Your task to perform on an android device: change the clock style Image 0: 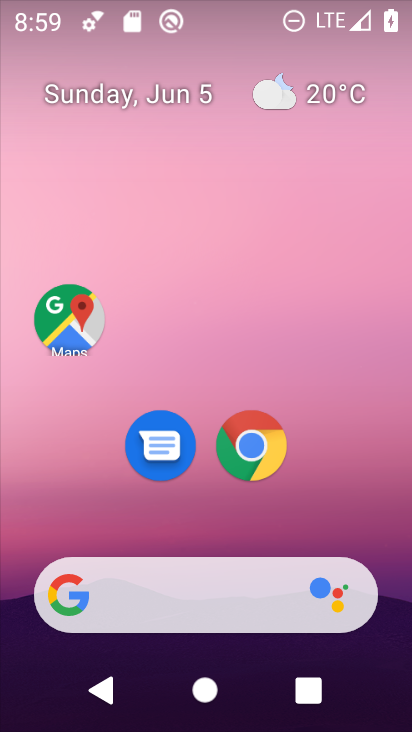
Step 0: drag from (260, 587) to (352, 6)
Your task to perform on an android device: change the clock style Image 1: 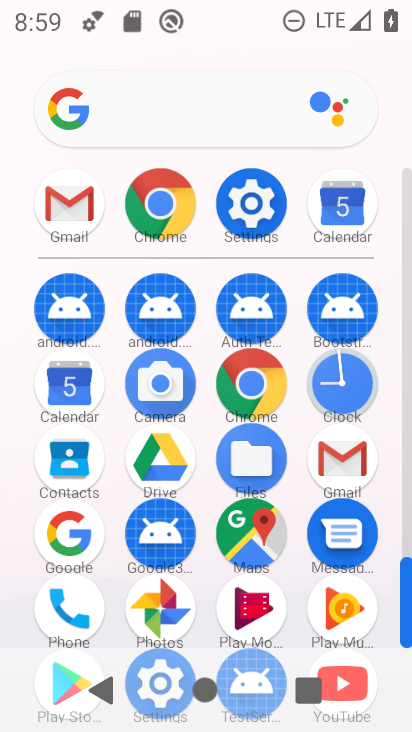
Step 1: click (353, 394)
Your task to perform on an android device: change the clock style Image 2: 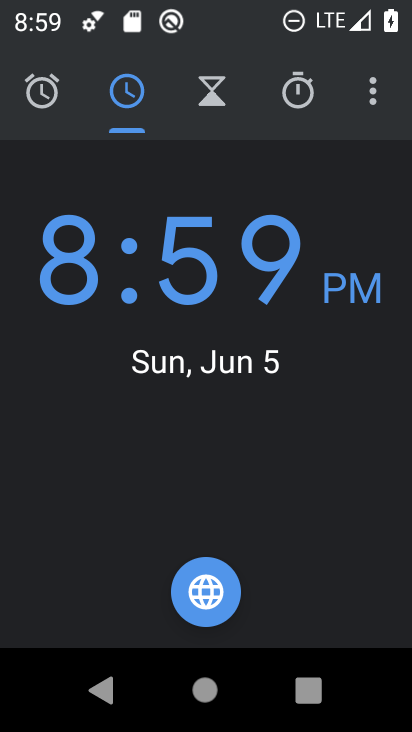
Step 2: click (388, 86)
Your task to perform on an android device: change the clock style Image 3: 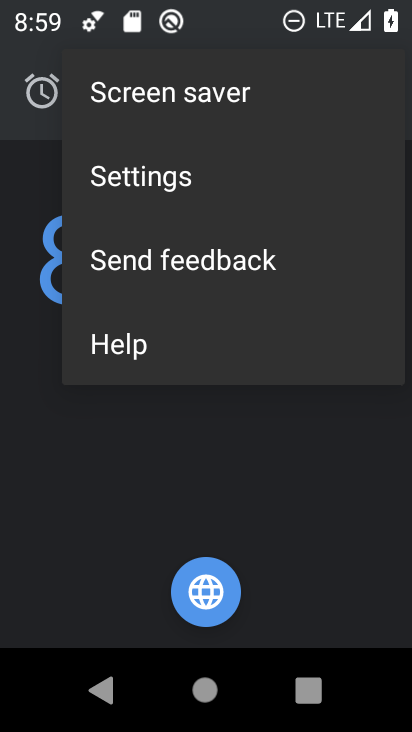
Step 3: click (165, 172)
Your task to perform on an android device: change the clock style Image 4: 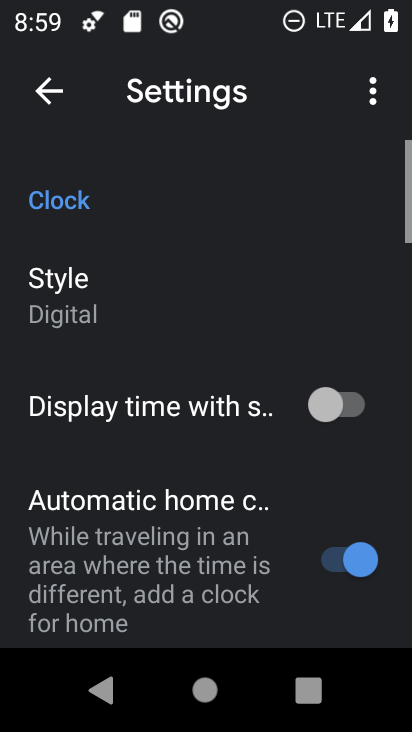
Step 4: click (115, 301)
Your task to perform on an android device: change the clock style Image 5: 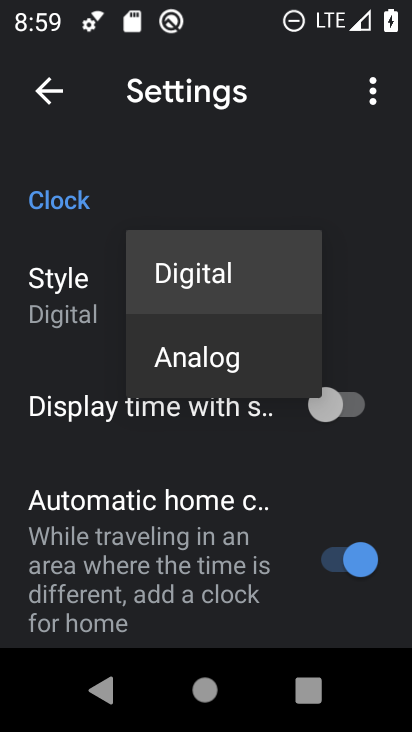
Step 5: click (182, 361)
Your task to perform on an android device: change the clock style Image 6: 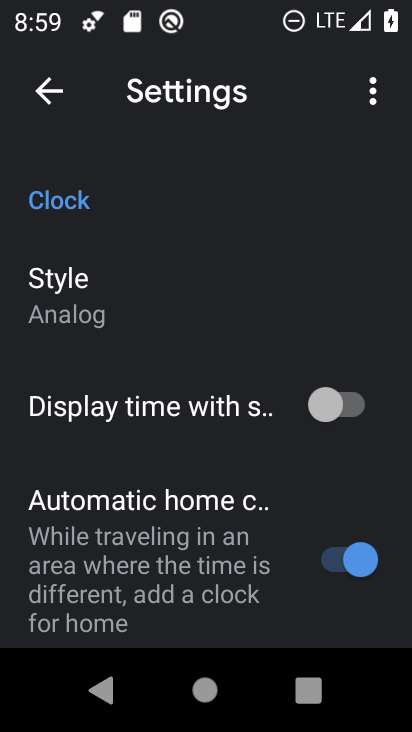
Step 6: task complete